Your task to perform on an android device: manage bookmarks in the chrome app Image 0: 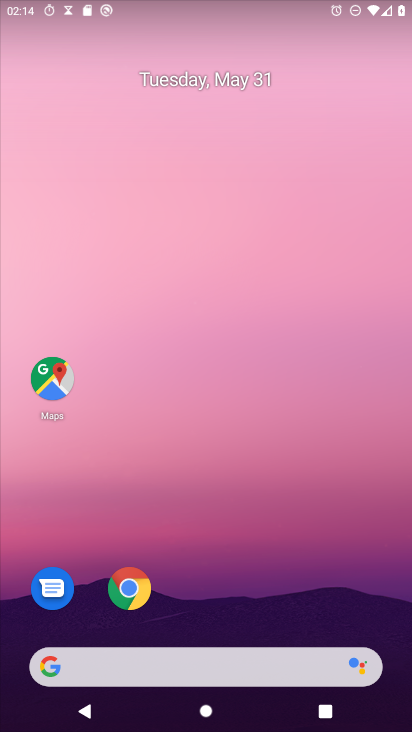
Step 0: drag from (358, 674) to (335, 68)
Your task to perform on an android device: manage bookmarks in the chrome app Image 1: 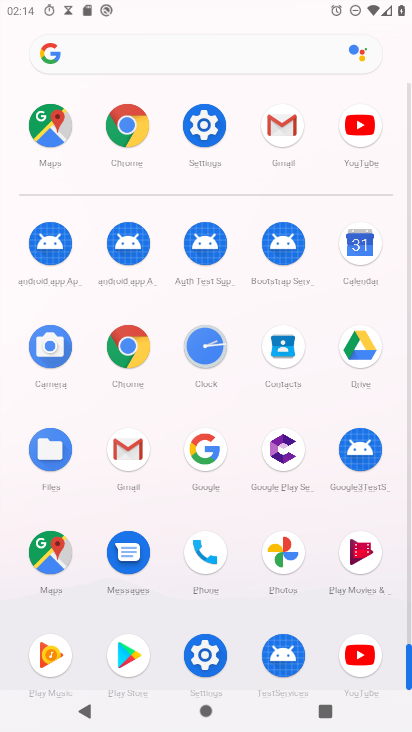
Step 1: click (127, 348)
Your task to perform on an android device: manage bookmarks in the chrome app Image 2: 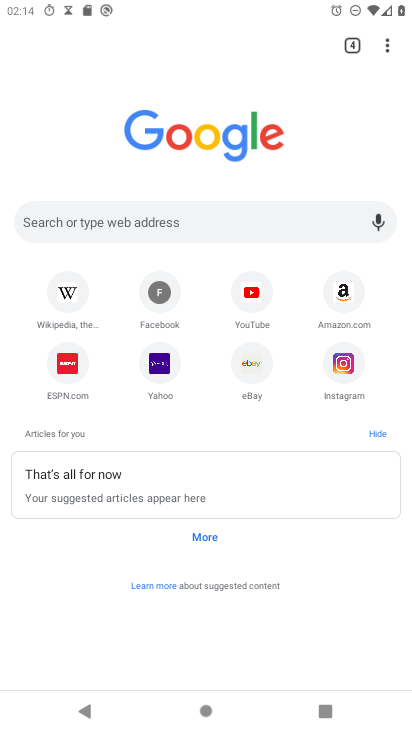
Step 2: task complete